Your task to perform on an android device: turn on sleep mode Image 0: 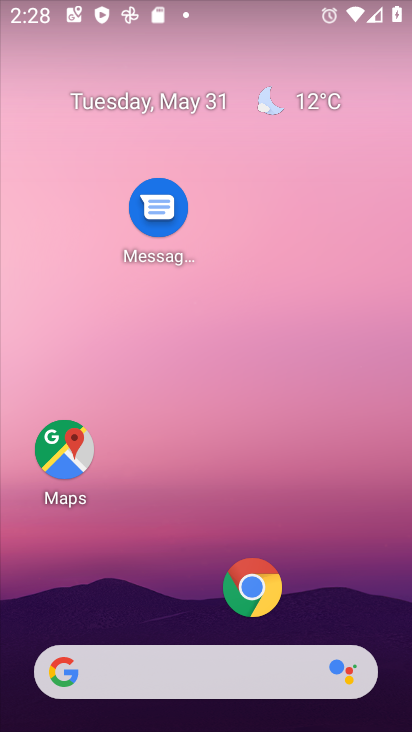
Step 0: drag from (193, 571) to (162, 153)
Your task to perform on an android device: turn on sleep mode Image 1: 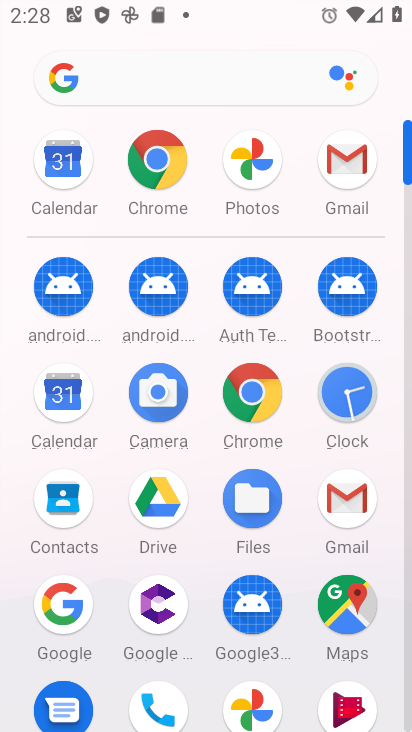
Step 1: drag from (192, 589) to (169, 193)
Your task to perform on an android device: turn on sleep mode Image 2: 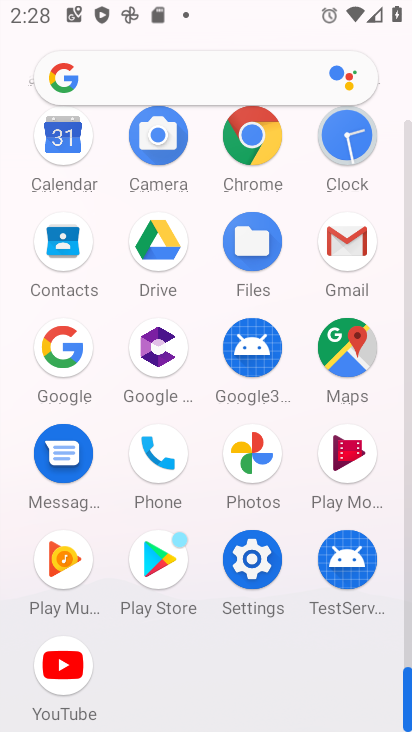
Step 2: click (245, 556)
Your task to perform on an android device: turn on sleep mode Image 3: 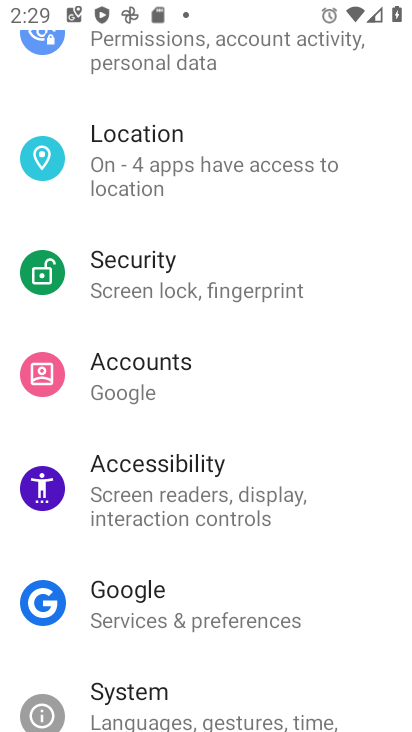
Step 3: drag from (216, 545) to (194, 343)
Your task to perform on an android device: turn on sleep mode Image 4: 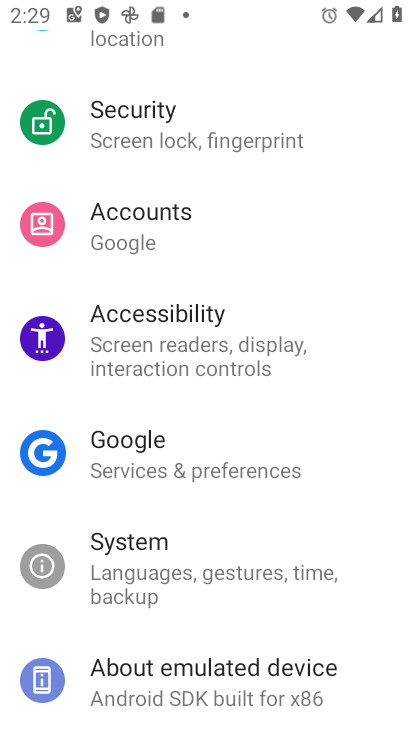
Step 4: drag from (157, 42) to (287, 549)
Your task to perform on an android device: turn on sleep mode Image 5: 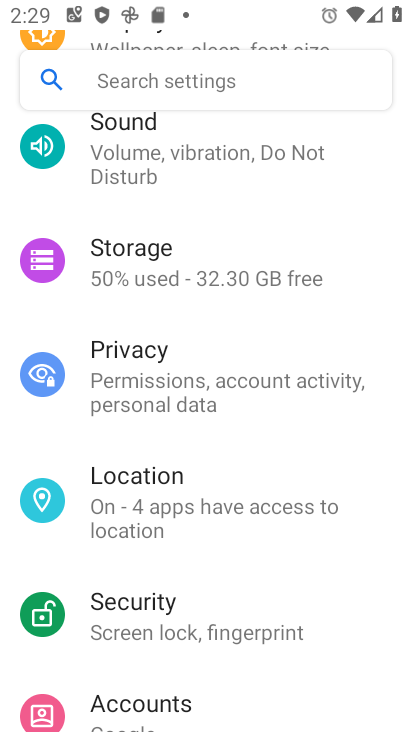
Step 5: drag from (148, 159) to (154, 513)
Your task to perform on an android device: turn on sleep mode Image 6: 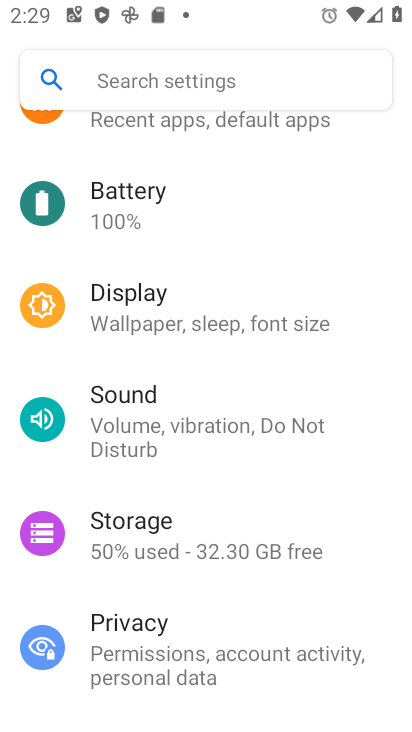
Step 6: click (182, 313)
Your task to perform on an android device: turn on sleep mode Image 7: 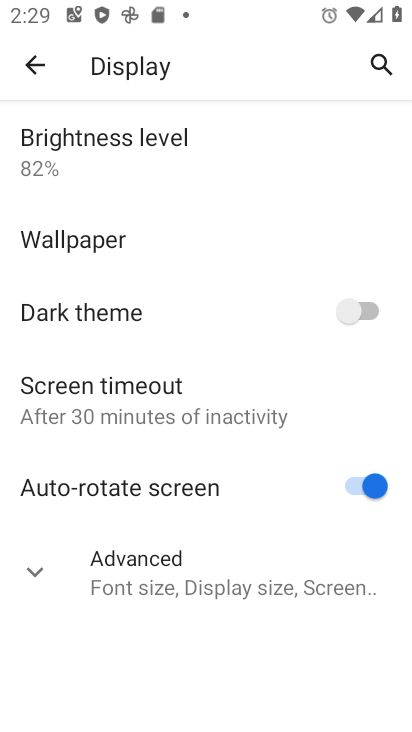
Step 7: click (141, 403)
Your task to perform on an android device: turn on sleep mode Image 8: 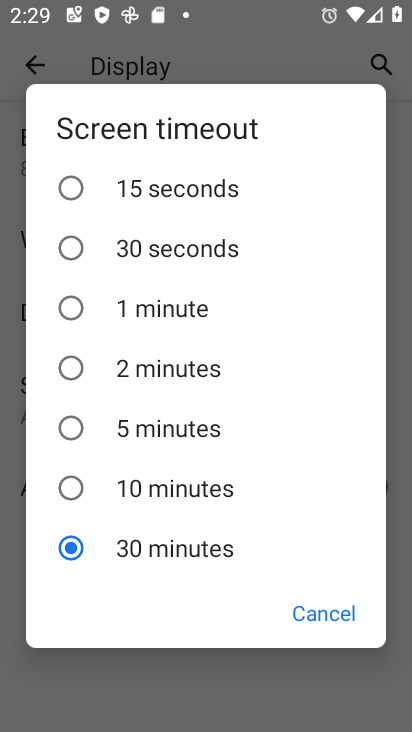
Step 8: task complete